Your task to perform on an android device: turn notification dots on Image 0: 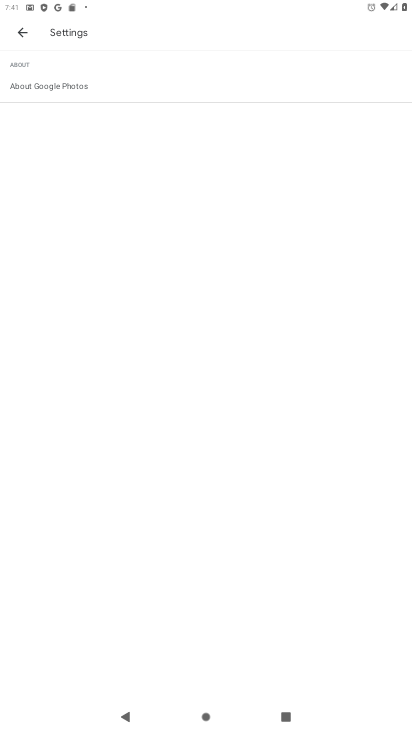
Step 0: press home button
Your task to perform on an android device: turn notification dots on Image 1: 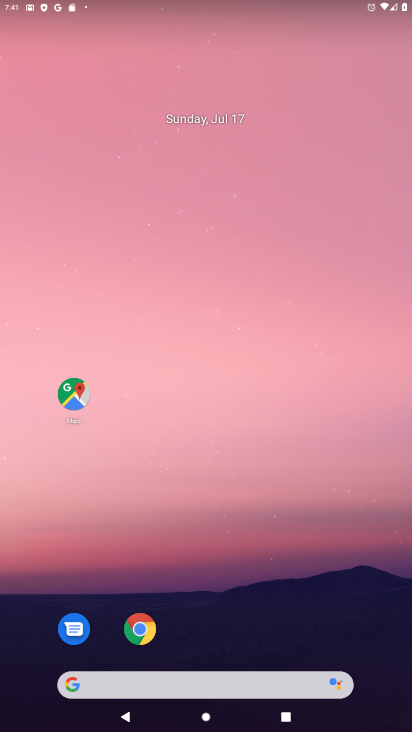
Step 1: drag from (221, 651) to (220, 35)
Your task to perform on an android device: turn notification dots on Image 2: 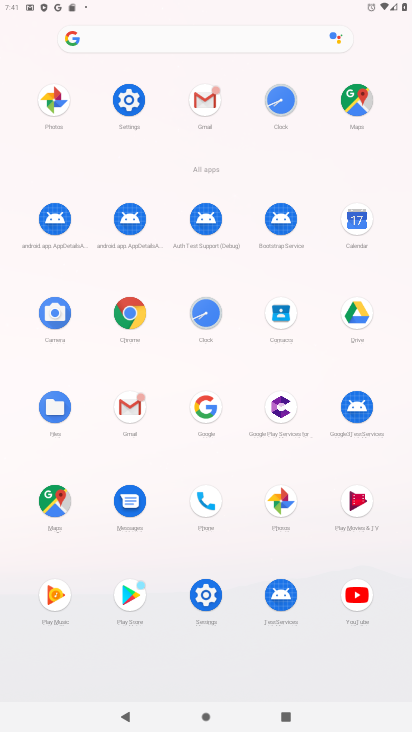
Step 2: click (206, 605)
Your task to perform on an android device: turn notification dots on Image 3: 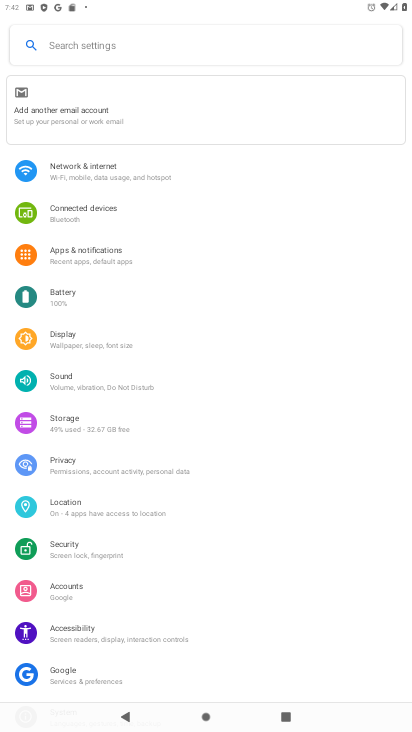
Step 3: click (83, 261)
Your task to perform on an android device: turn notification dots on Image 4: 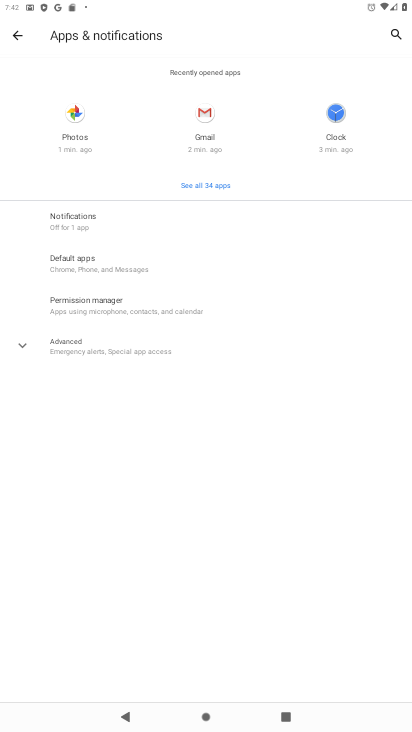
Step 4: click (109, 352)
Your task to perform on an android device: turn notification dots on Image 5: 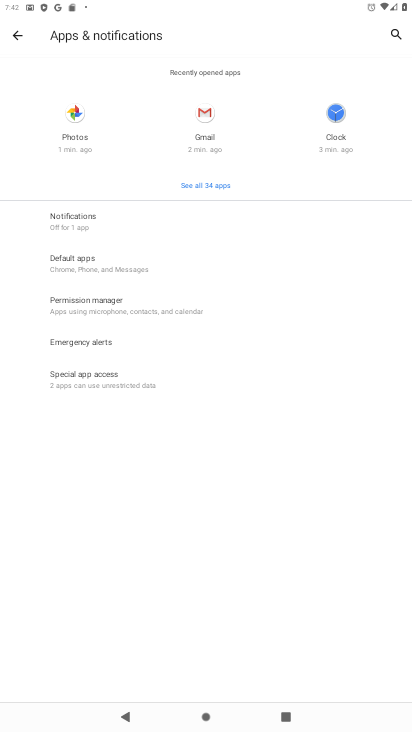
Step 5: click (59, 229)
Your task to perform on an android device: turn notification dots on Image 6: 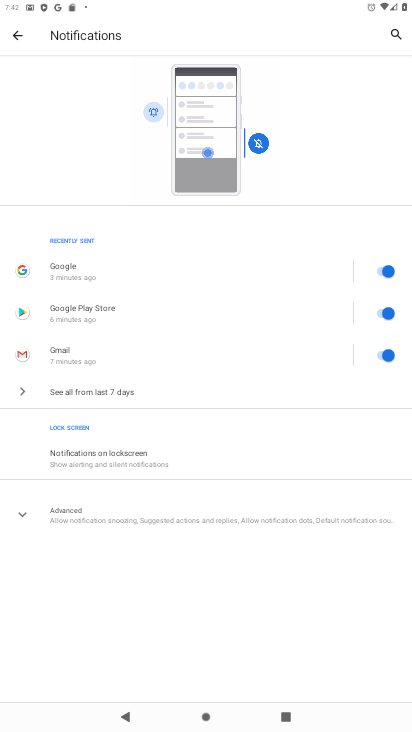
Step 6: click (97, 517)
Your task to perform on an android device: turn notification dots on Image 7: 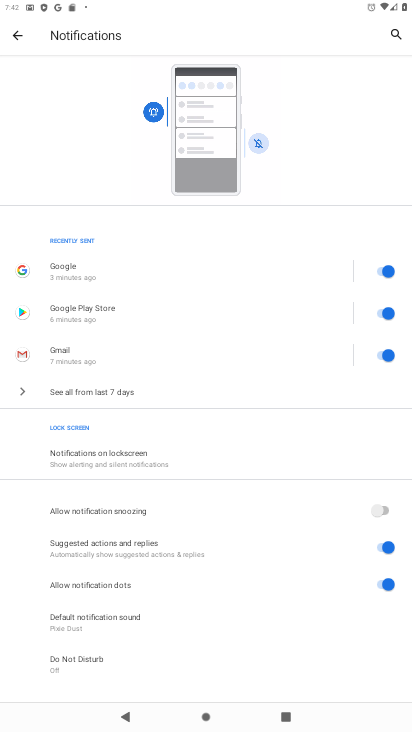
Step 7: task complete